Your task to perform on an android device: Empty the shopping cart on amazon.com. Image 0: 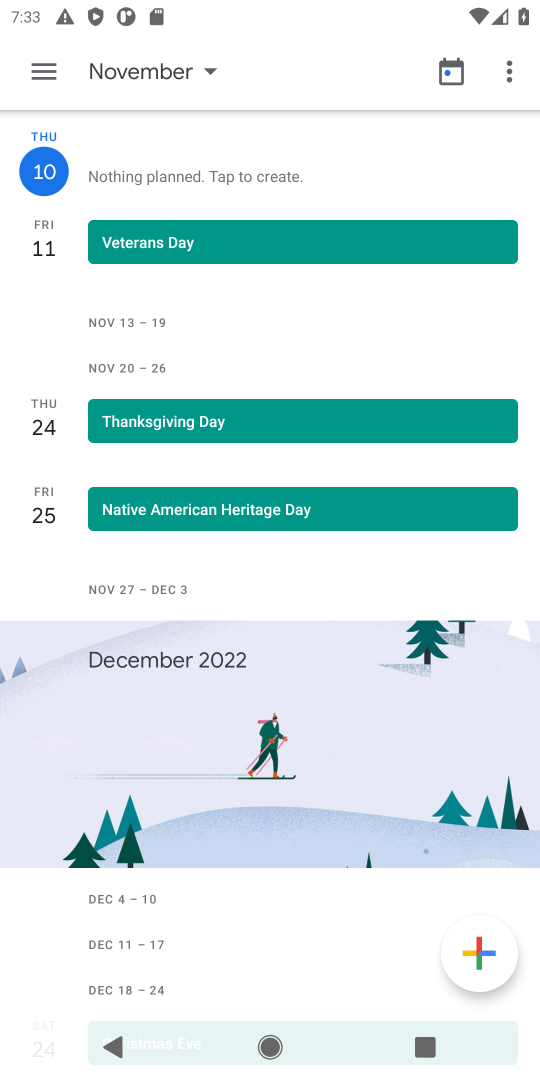
Step 0: press home button
Your task to perform on an android device: Empty the shopping cart on amazon.com. Image 1: 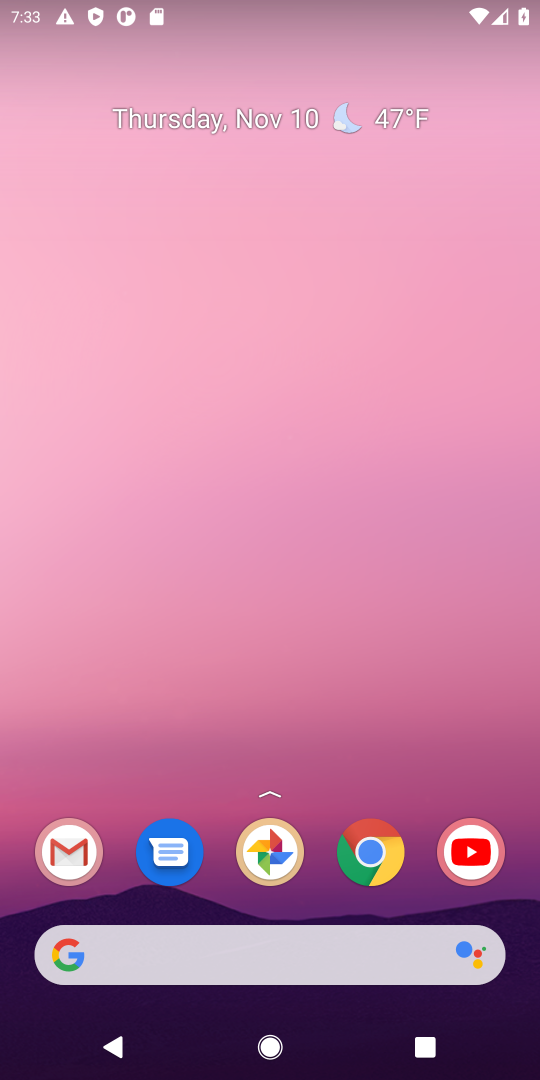
Step 1: click (368, 840)
Your task to perform on an android device: Empty the shopping cart on amazon.com. Image 2: 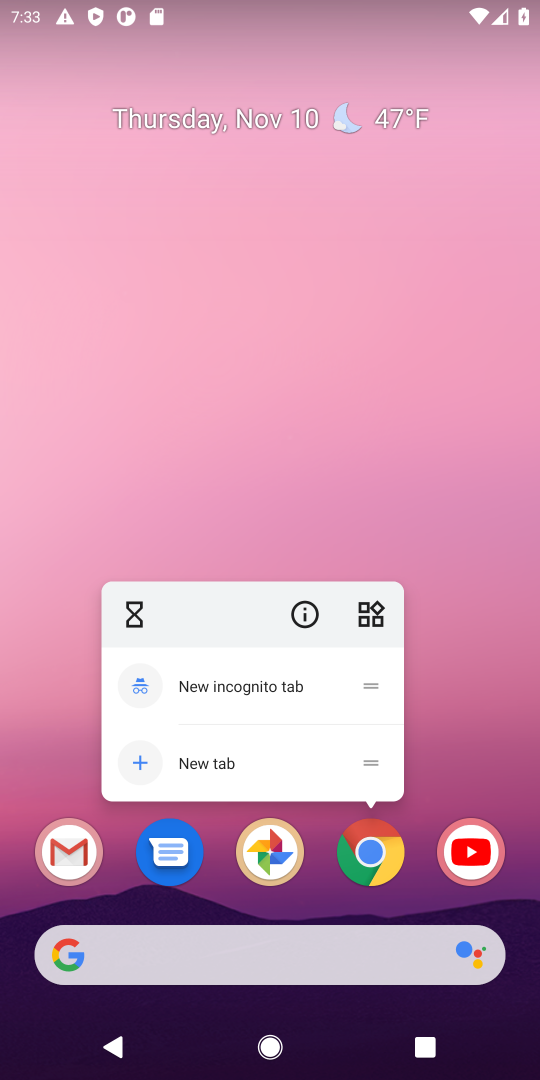
Step 2: click (365, 857)
Your task to perform on an android device: Empty the shopping cart on amazon.com. Image 3: 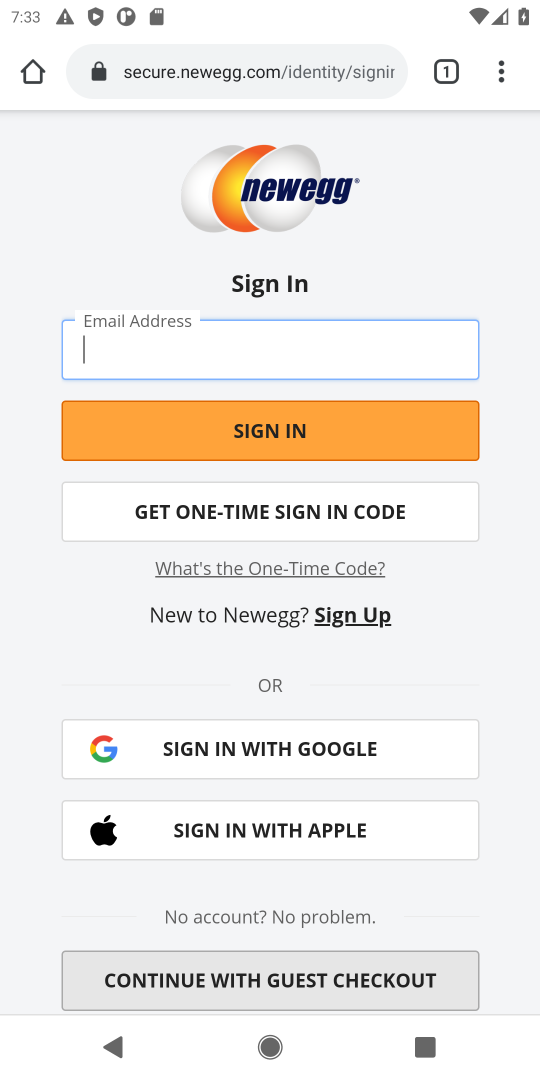
Step 3: click (311, 61)
Your task to perform on an android device: Empty the shopping cart on amazon.com. Image 4: 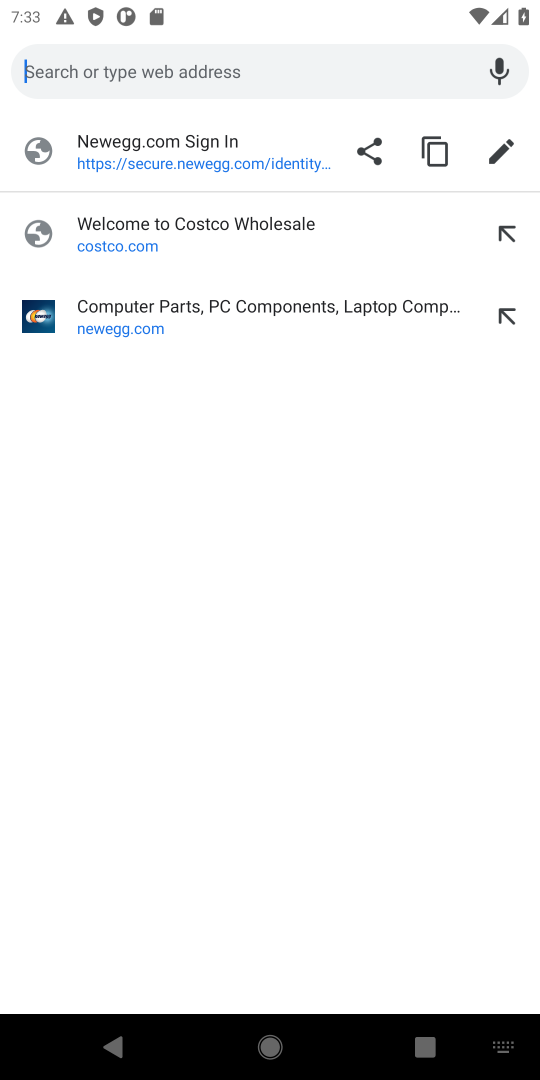
Step 4: type "amazon.com"
Your task to perform on an android device: Empty the shopping cart on amazon.com. Image 5: 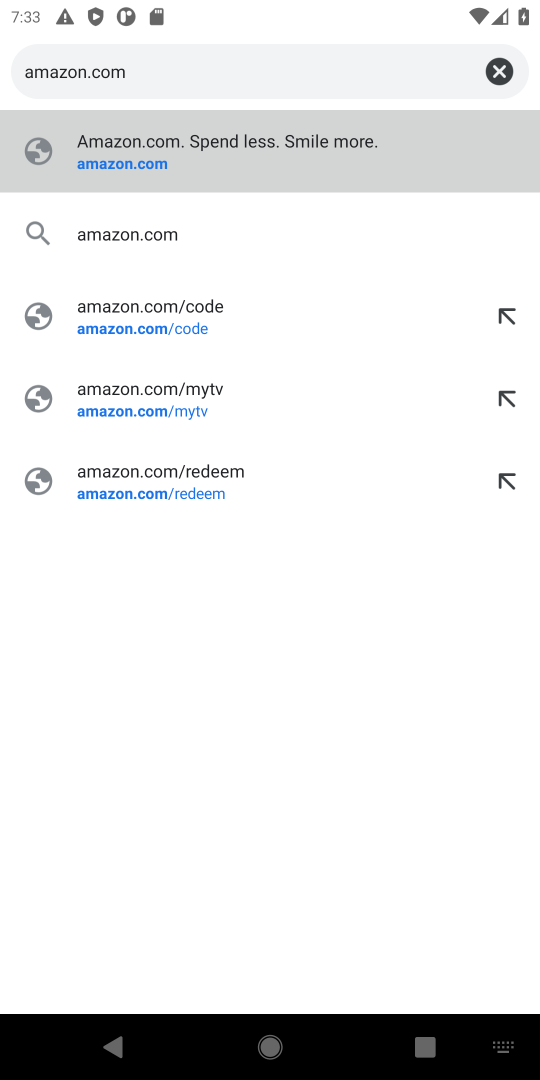
Step 5: press enter
Your task to perform on an android device: Empty the shopping cart on amazon.com. Image 6: 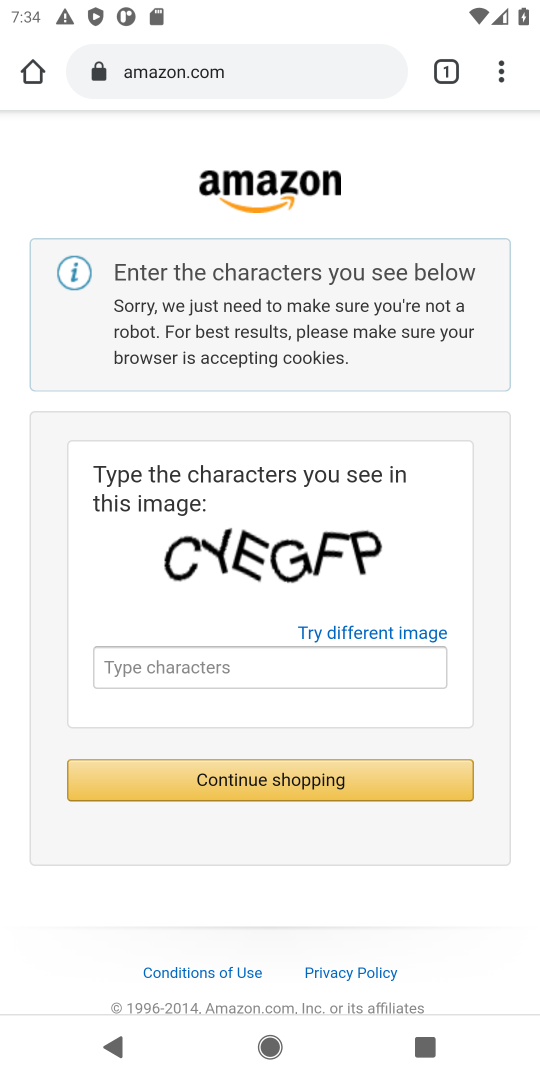
Step 6: click (250, 668)
Your task to perform on an android device: Empty the shopping cart on amazon.com. Image 7: 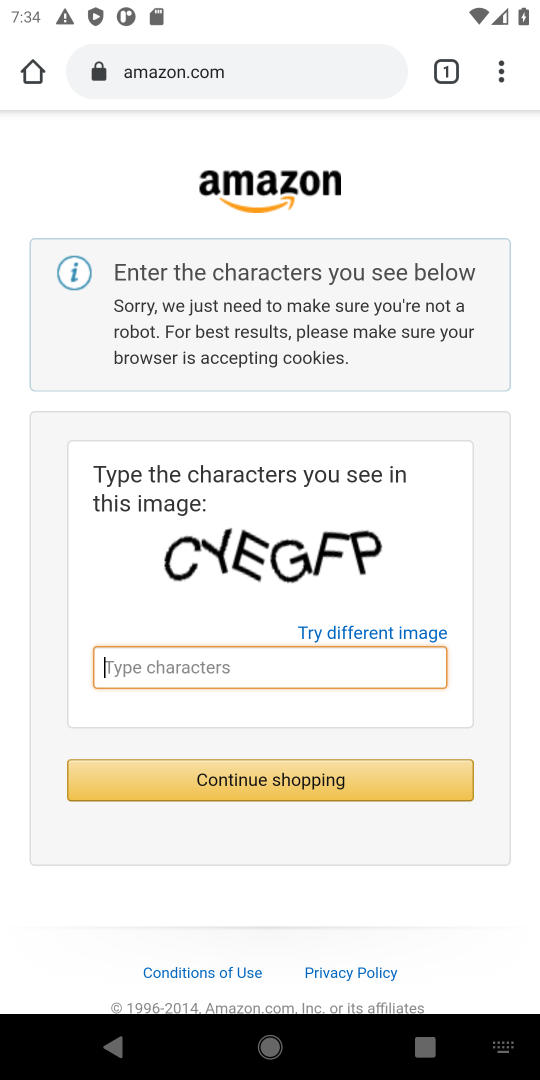
Step 7: click (242, 656)
Your task to perform on an android device: Empty the shopping cart on amazon.com. Image 8: 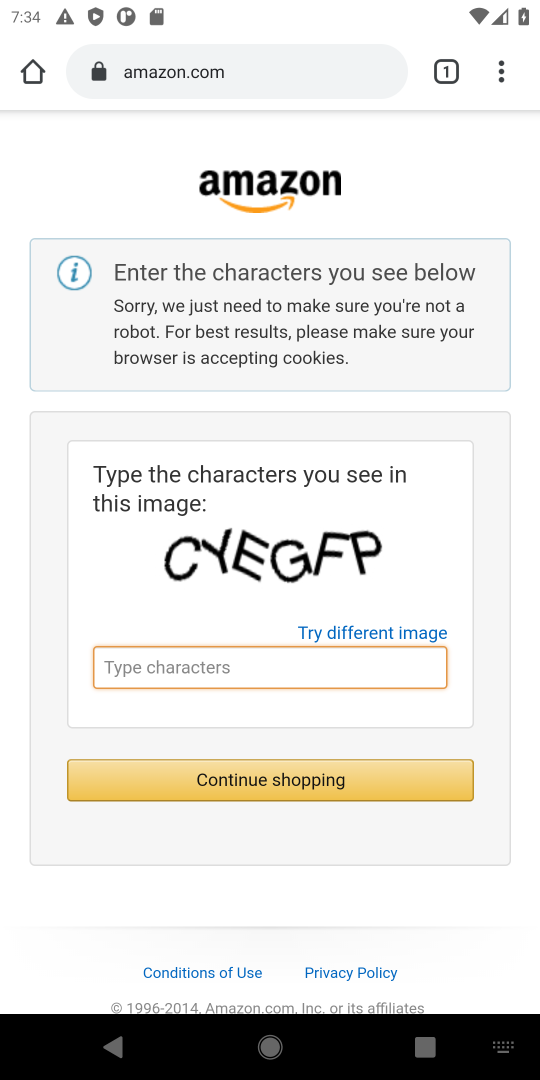
Step 8: type "CYEGFP"
Your task to perform on an android device: Empty the shopping cart on amazon.com. Image 9: 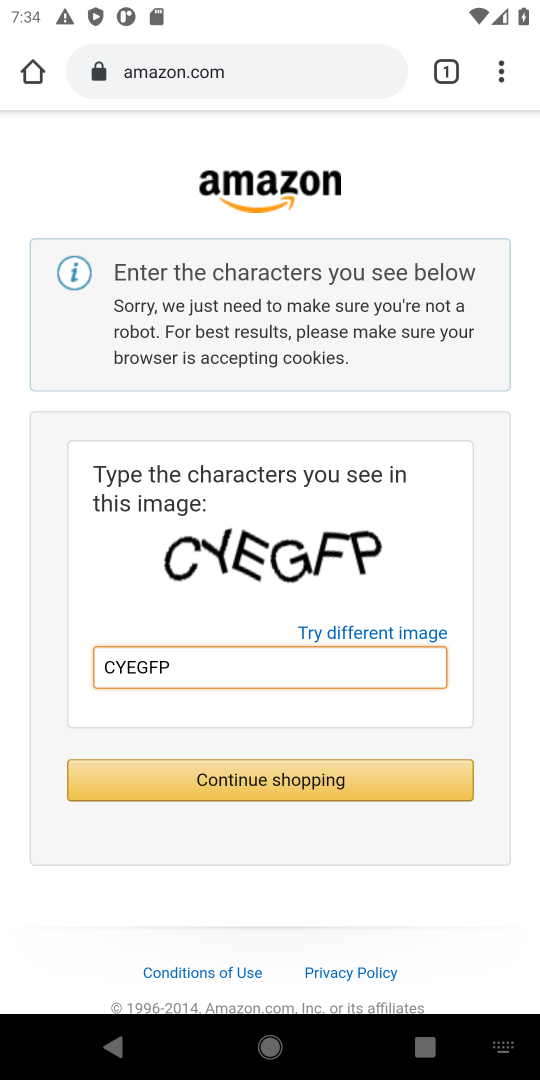
Step 9: press enter
Your task to perform on an android device: Empty the shopping cart on amazon.com. Image 10: 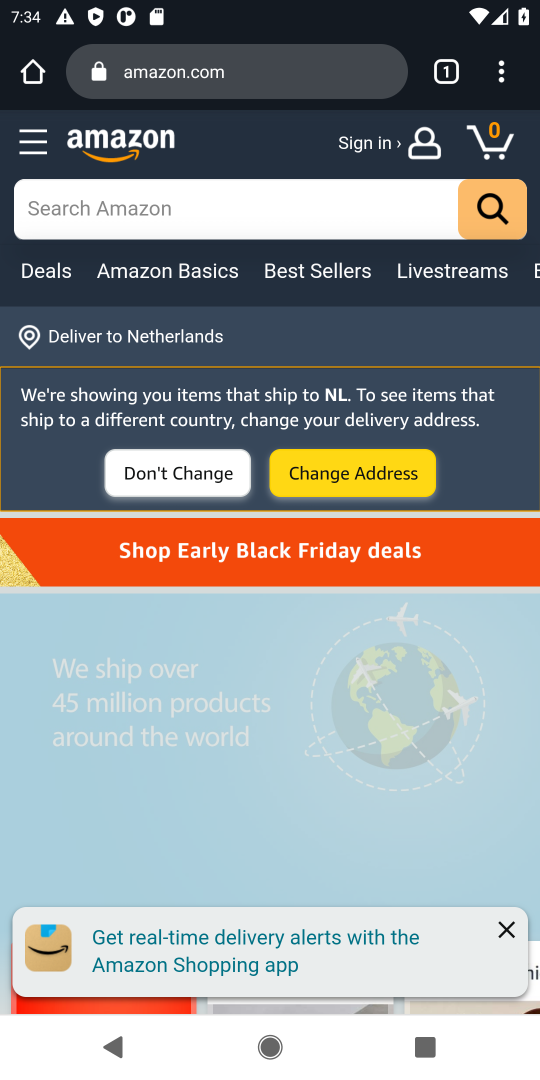
Step 10: click (489, 134)
Your task to perform on an android device: Empty the shopping cart on amazon.com. Image 11: 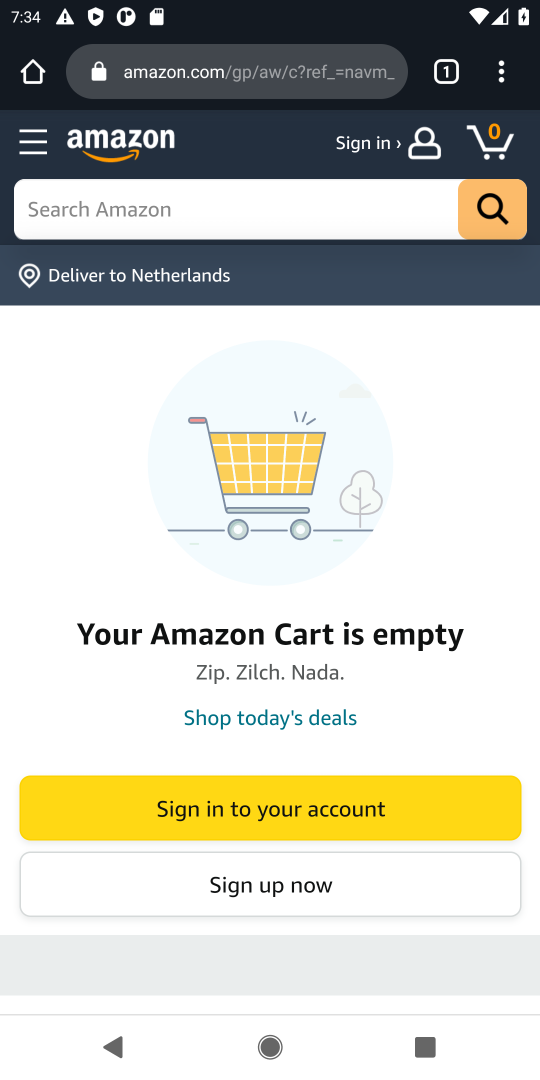
Step 11: task complete